Your task to perform on an android device: turn on showing notifications on the lock screen Image 0: 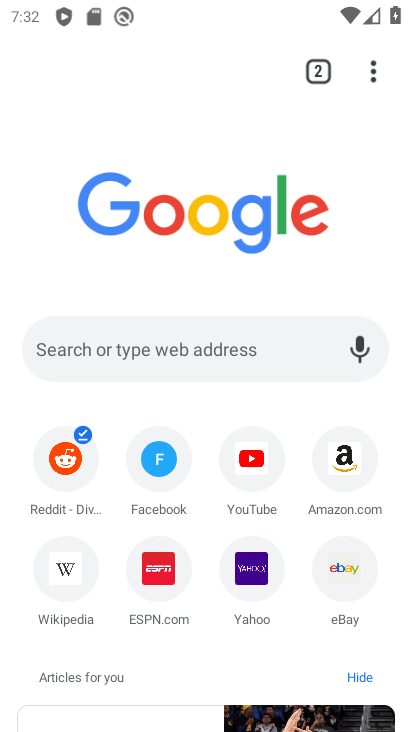
Step 0: press home button
Your task to perform on an android device: turn on showing notifications on the lock screen Image 1: 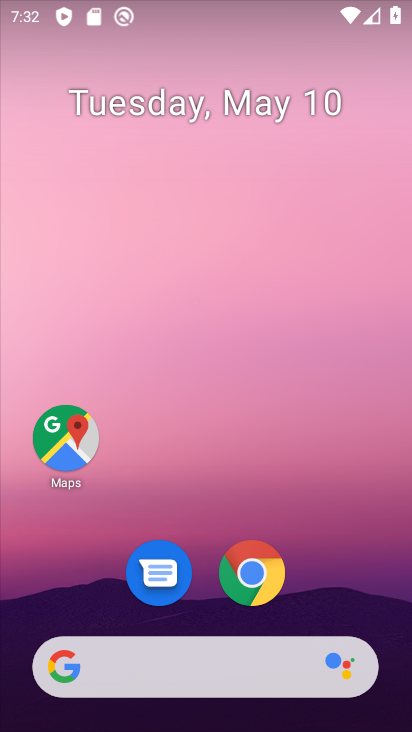
Step 1: drag from (341, 550) to (283, 211)
Your task to perform on an android device: turn on showing notifications on the lock screen Image 2: 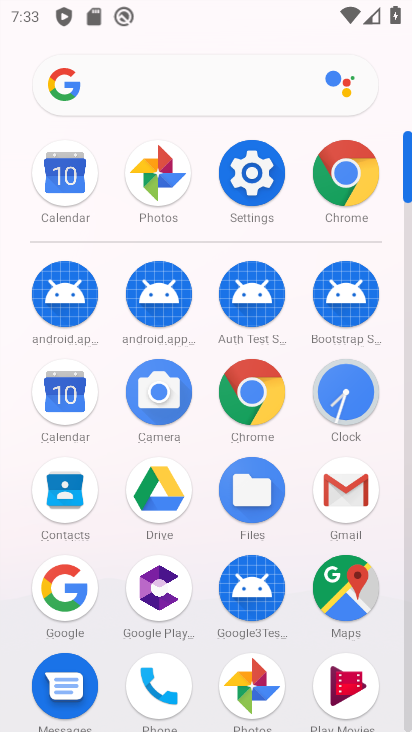
Step 2: click (245, 181)
Your task to perform on an android device: turn on showing notifications on the lock screen Image 3: 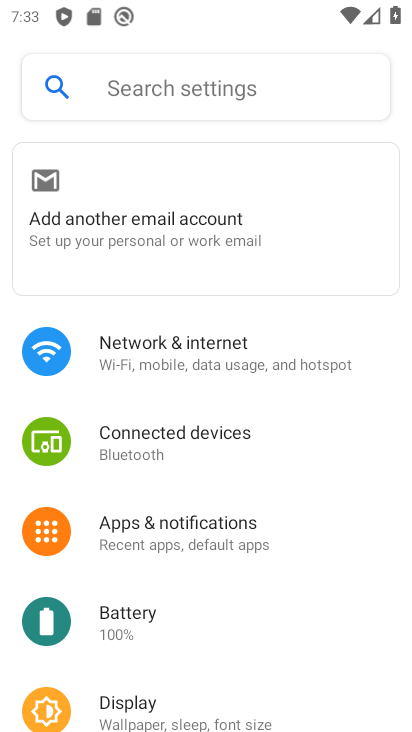
Step 3: drag from (279, 642) to (296, 340)
Your task to perform on an android device: turn on showing notifications on the lock screen Image 4: 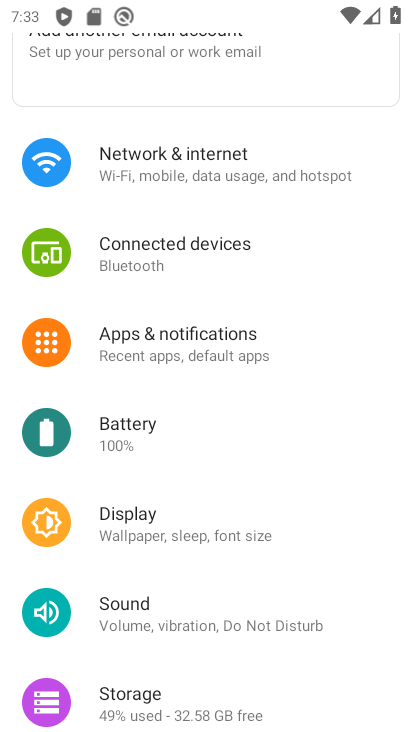
Step 4: click (275, 357)
Your task to perform on an android device: turn on showing notifications on the lock screen Image 5: 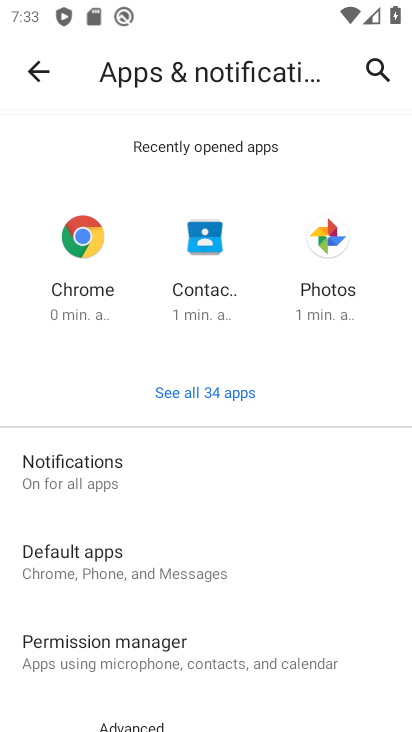
Step 5: drag from (254, 568) to (254, 248)
Your task to perform on an android device: turn on showing notifications on the lock screen Image 6: 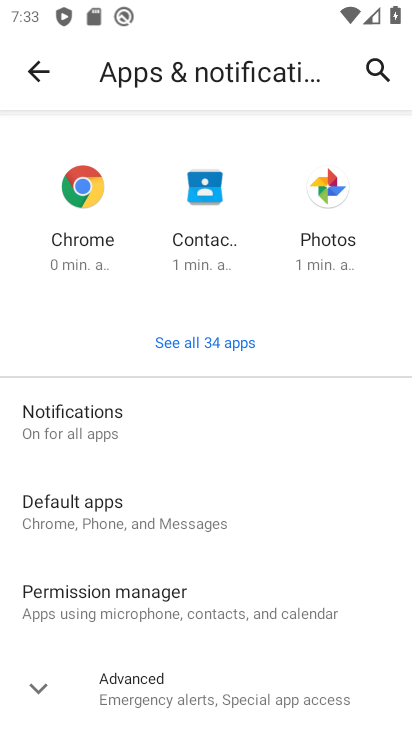
Step 6: click (91, 420)
Your task to perform on an android device: turn on showing notifications on the lock screen Image 7: 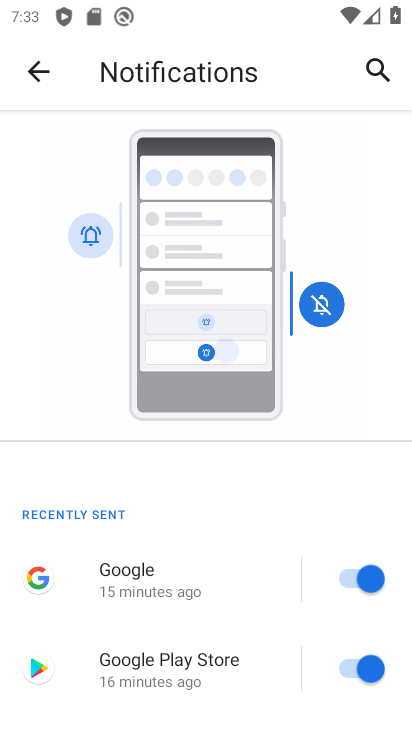
Step 7: drag from (265, 520) to (311, 147)
Your task to perform on an android device: turn on showing notifications on the lock screen Image 8: 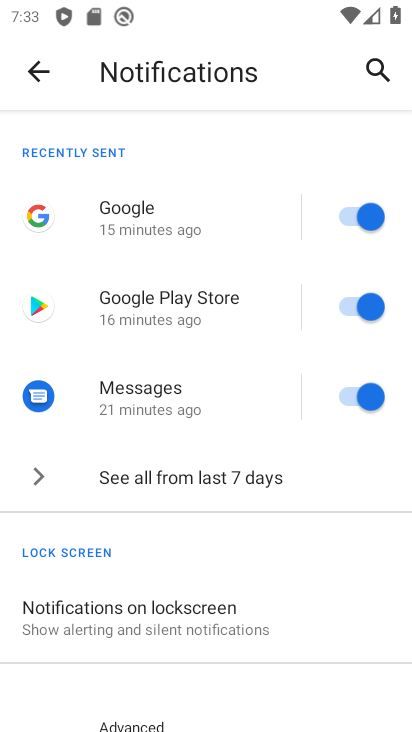
Step 8: click (215, 627)
Your task to perform on an android device: turn on showing notifications on the lock screen Image 9: 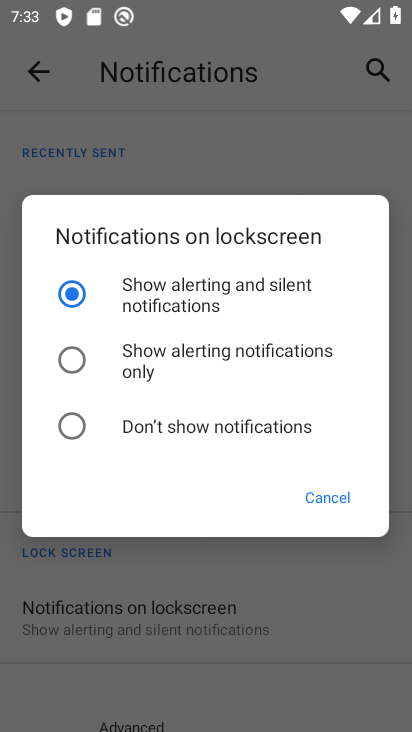
Step 9: task complete